Your task to perform on an android device: Set the phone to "Do not disturb". Image 0: 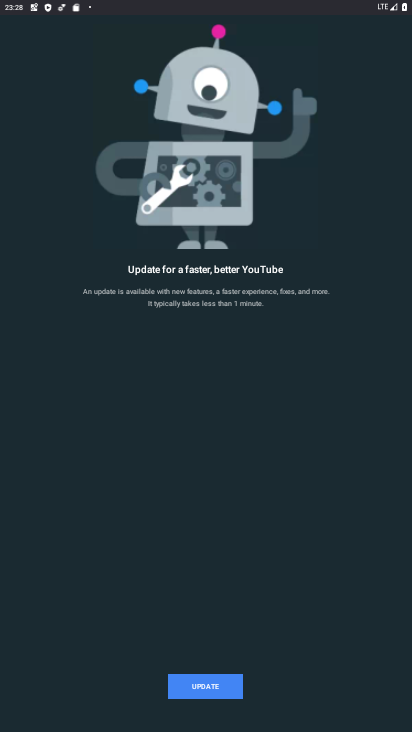
Step 0: press home button
Your task to perform on an android device: Set the phone to "Do not disturb". Image 1: 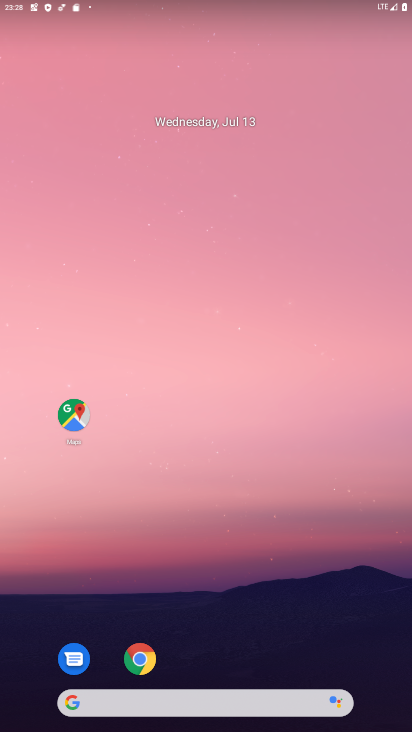
Step 1: drag from (389, 667) to (300, 194)
Your task to perform on an android device: Set the phone to "Do not disturb". Image 2: 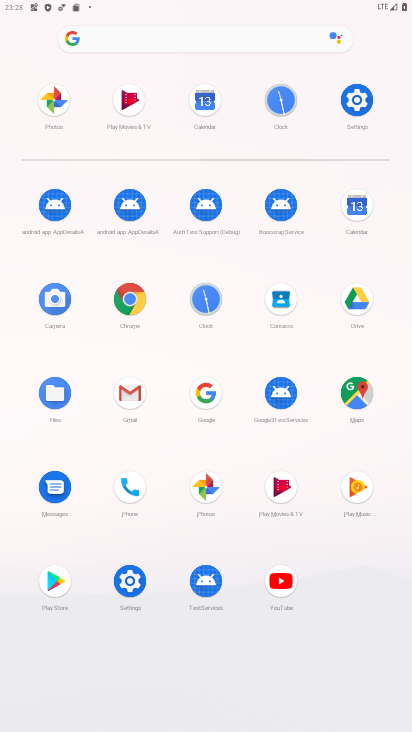
Step 2: click (129, 581)
Your task to perform on an android device: Set the phone to "Do not disturb". Image 3: 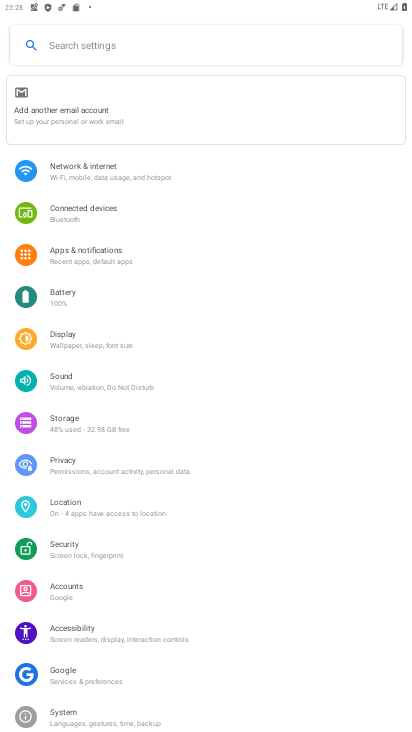
Step 3: click (56, 384)
Your task to perform on an android device: Set the phone to "Do not disturb". Image 4: 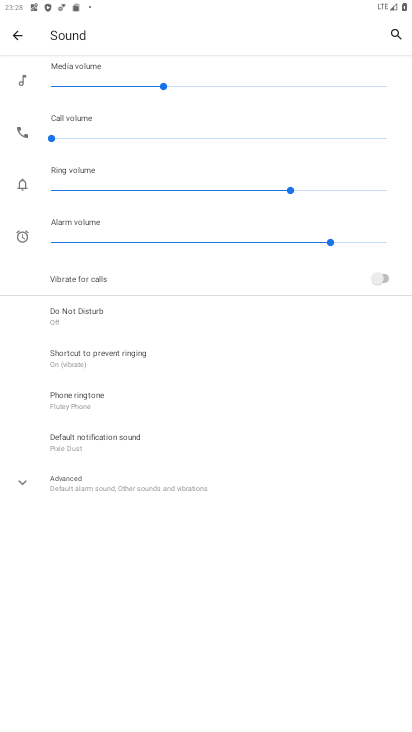
Step 4: click (57, 313)
Your task to perform on an android device: Set the phone to "Do not disturb". Image 5: 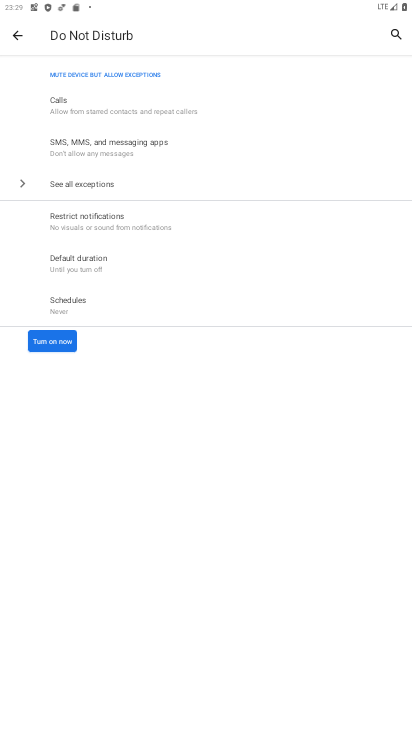
Step 5: click (48, 340)
Your task to perform on an android device: Set the phone to "Do not disturb". Image 6: 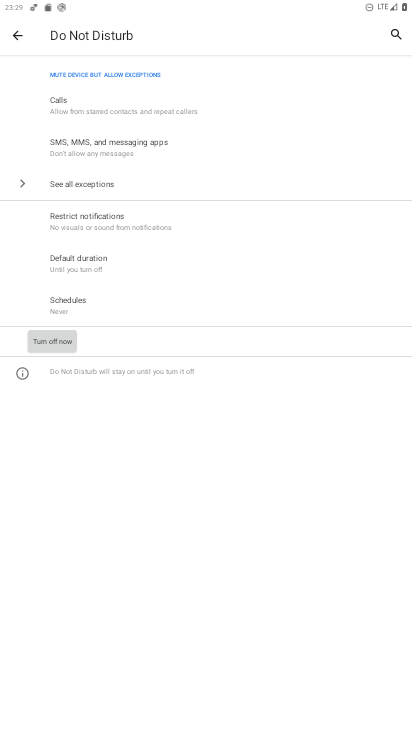
Step 6: task complete